Your task to perform on an android device: Go to Reddit.com Image 0: 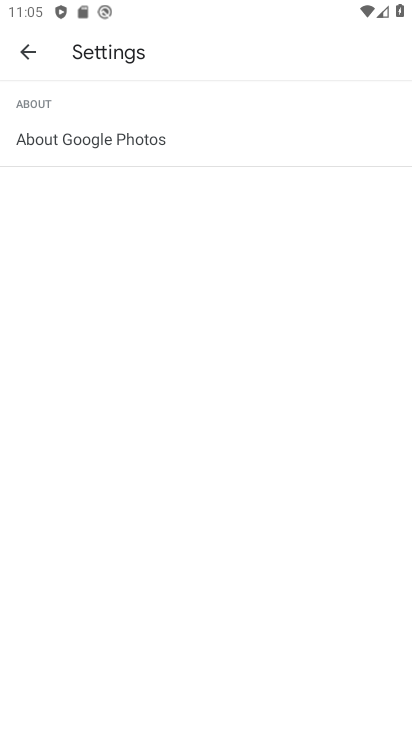
Step 0: press home button
Your task to perform on an android device: Go to Reddit.com Image 1: 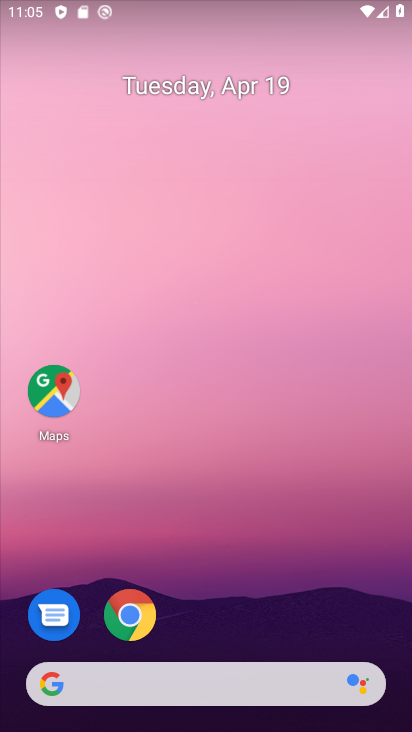
Step 1: click (205, 684)
Your task to perform on an android device: Go to Reddit.com Image 2: 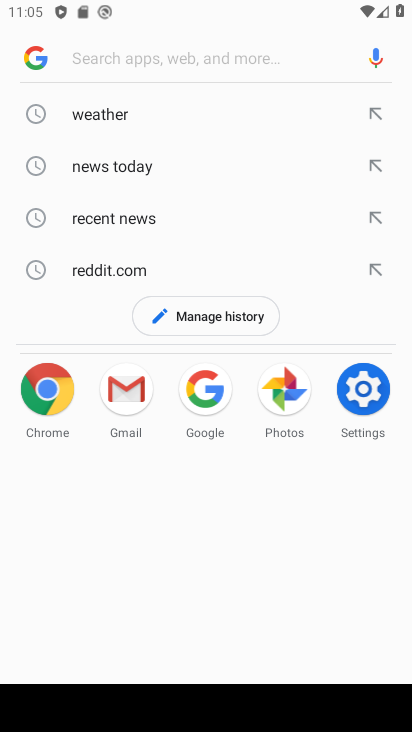
Step 2: type "Reddit.com"
Your task to perform on an android device: Go to Reddit.com Image 3: 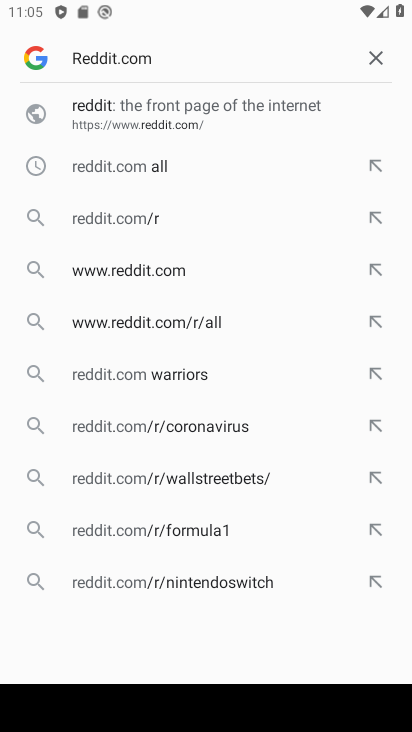
Step 3: click (185, 273)
Your task to perform on an android device: Go to Reddit.com Image 4: 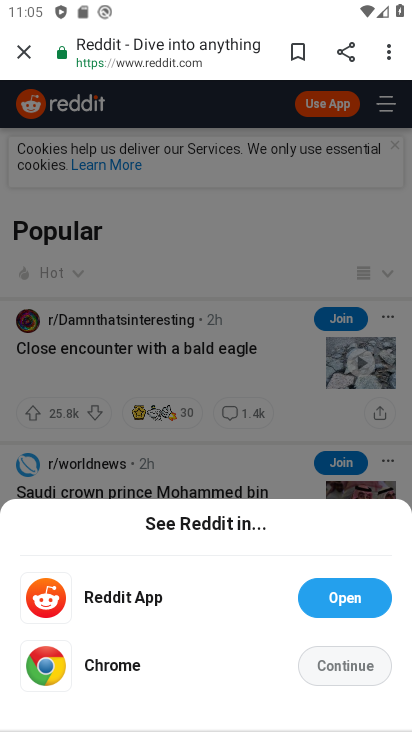
Step 4: click (364, 653)
Your task to perform on an android device: Go to Reddit.com Image 5: 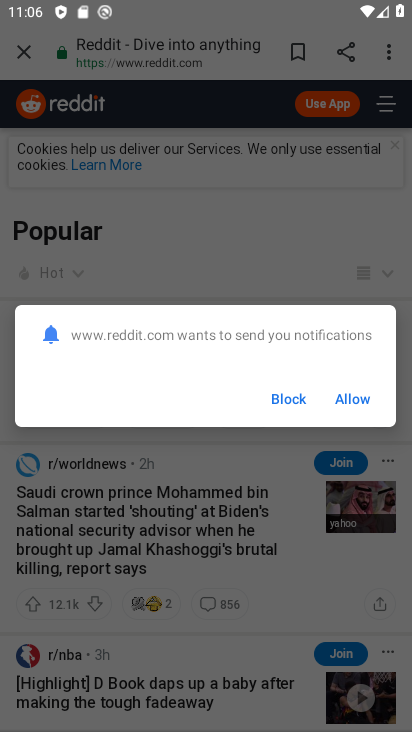
Step 5: task complete